Your task to perform on an android device: Clear the shopping cart on costco. Add duracell triple a to the cart on costco, then select checkout. Image 0: 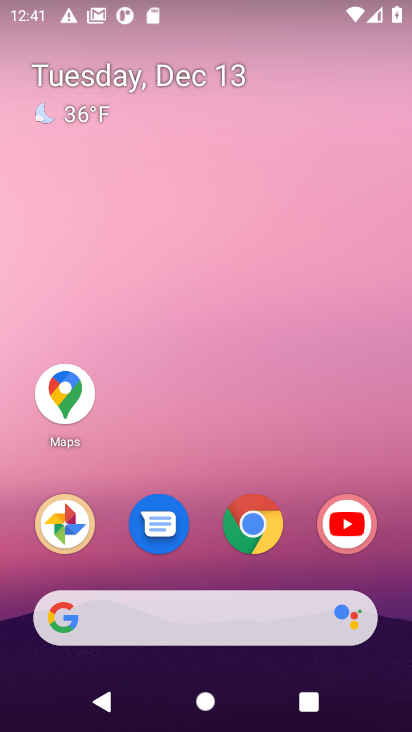
Step 0: click (261, 533)
Your task to perform on an android device: Clear the shopping cart on costco. Add duracell triple a to the cart on costco, then select checkout. Image 1: 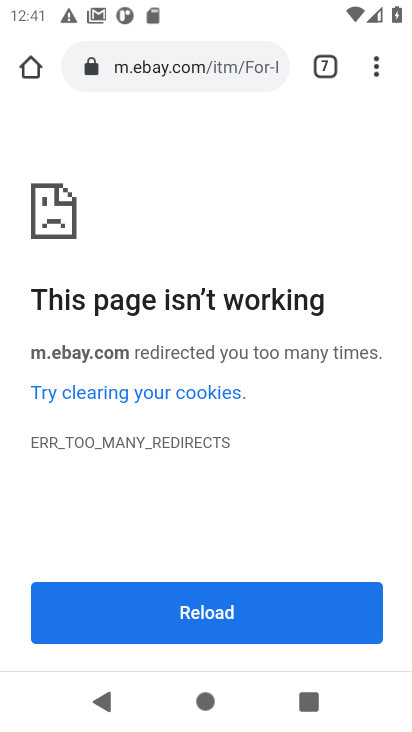
Step 1: click (202, 64)
Your task to perform on an android device: Clear the shopping cart on costco. Add duracell triple a to the cart on costco, then select checkout. Image 2: 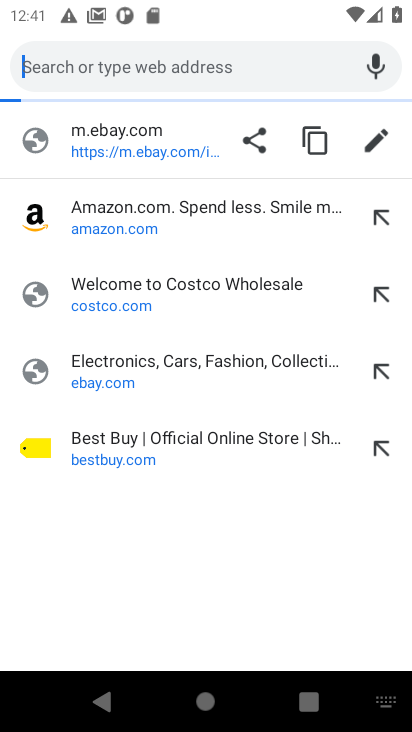
Step 2: click (103, 289)
Your task to perform on an android device: Clear the shopping cart on costco. Add duracell triple a to the cart on costco, then select checkout. Image 3: 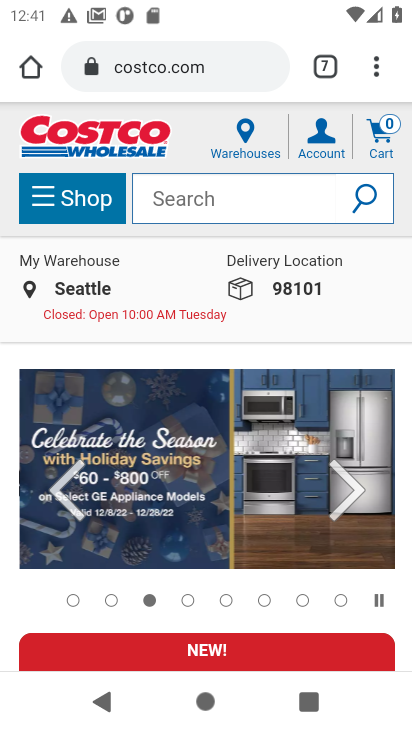
Step 3: click (372, 142)
Your task to perform on an android device: Clear the shopping cart on costco. Add duracell triple a to the cart on costco, then select checkout. Image 4: 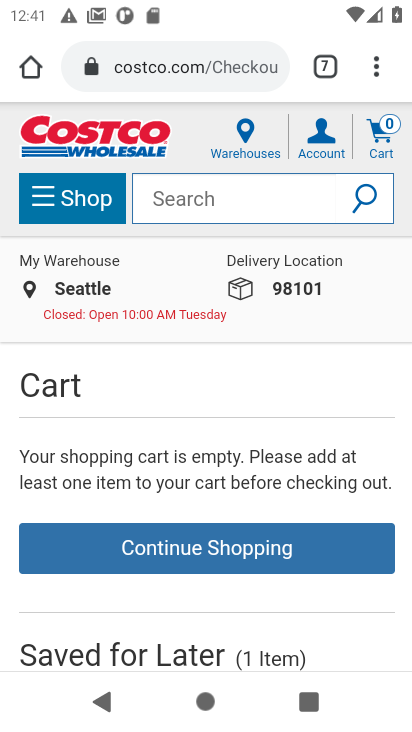
Step 4: click (208, 200)
Your task to perform on an android device: Clear the shopping cart on costco. Add duracell triple a to the cart on costco, then select checkout. Image 5: 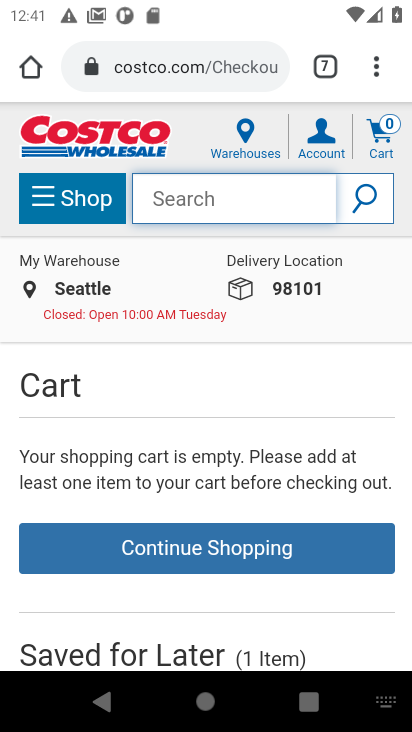
Step 5: type "duracell triple a"
Your task to perform on an android device: Clear the shopping cart on costco. Add duracell triple a to the cart on costco, then select checkout. Image 6: 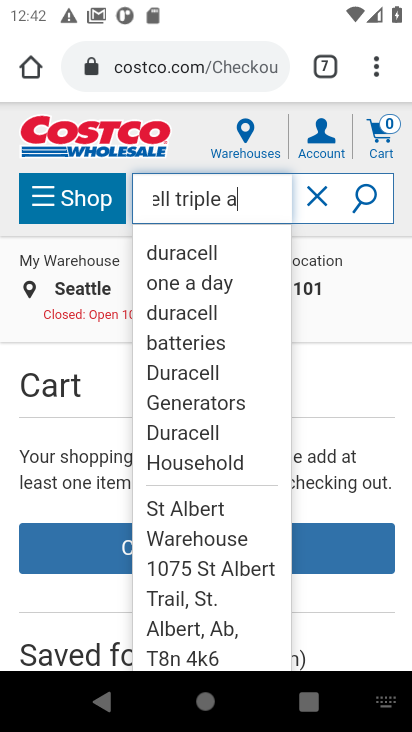
Step 6: click (363, 196)
Your task to perform on an android device: Clear the shopping cart on costco. Add duracell triple a to the cart on costco, then select checkout. Image 7: 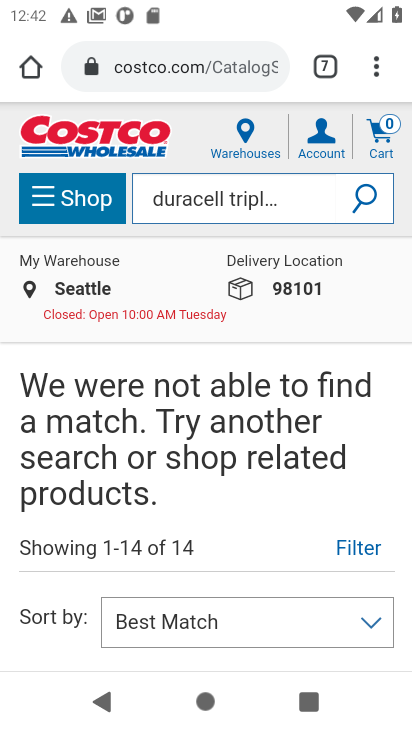
Step 7: task complete